Your task to perform on an android device: Go to Google Image 0: 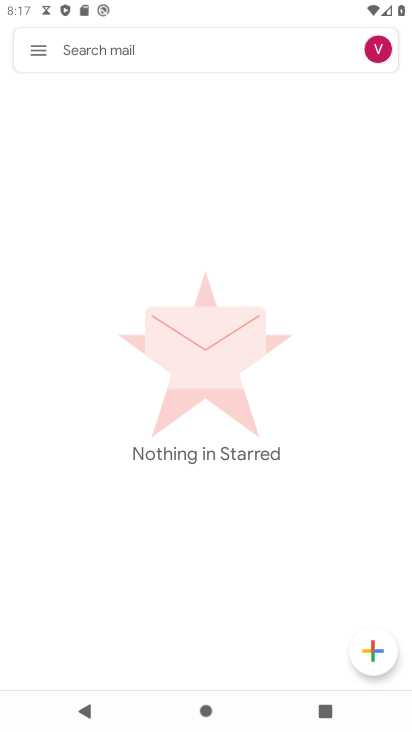
Step 0: press home button
Your task to perform on an android device: Go to Google Image 1: 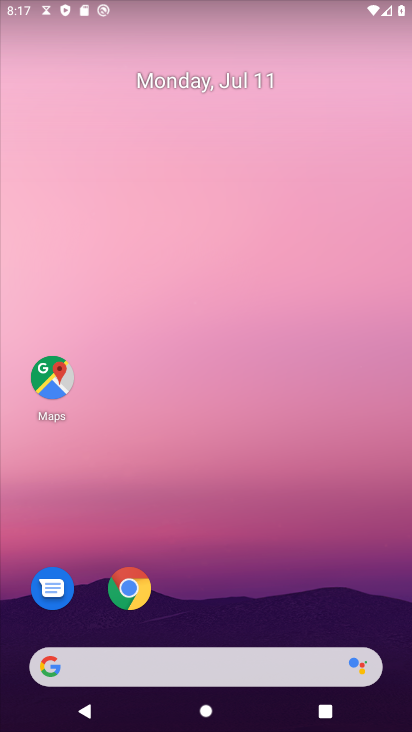
Step 1: drag from (245, 595) to (206, 172)
Your task to perform on an android device: Go to Google Image 2: 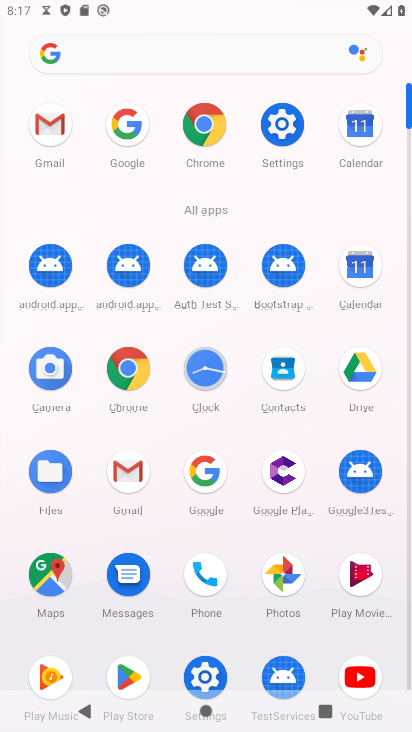
Step 2: click (138, 136)
Your task to perform on an android device: Go to Google Image 3: 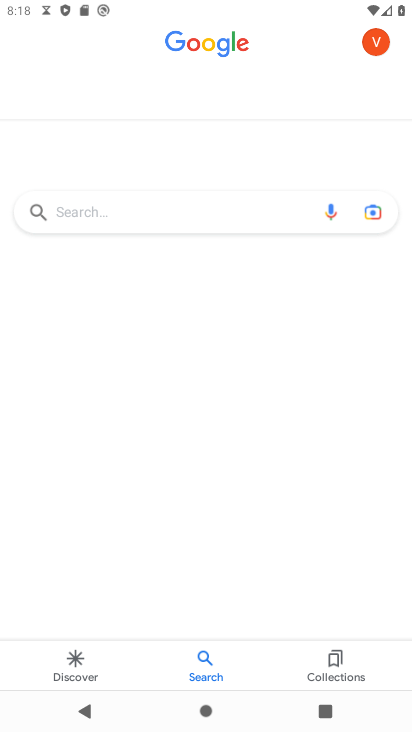
Step 3: click (208, 43)
Your task to perform on an android device: Go to Google Image 4: 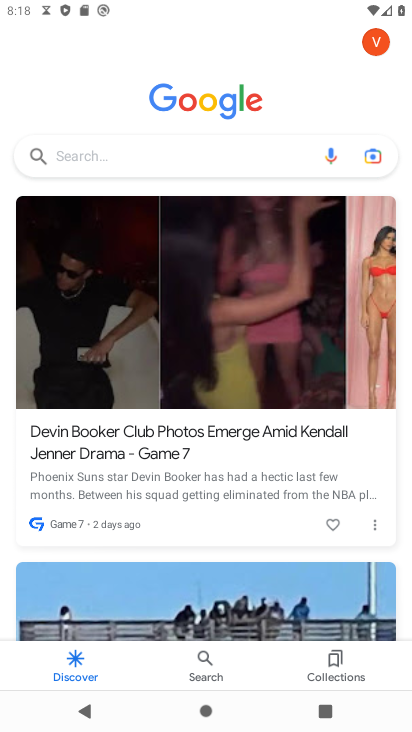
Step 4: task complete